Your task to perform on an android device: Go to accessibility settings Image 0: 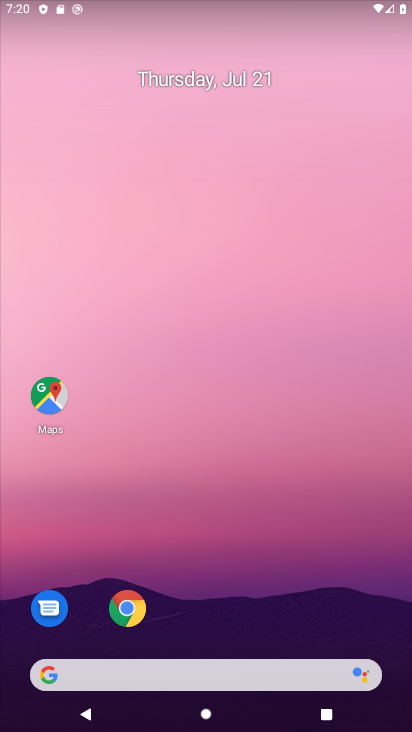
Step 0: drag from (227, 664) to (279, 176)
Your task to perform on an android device: Go to accessibility settings Image 1: 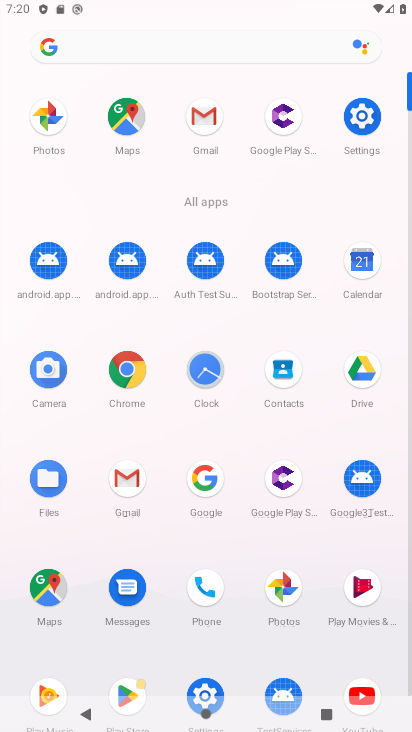
Step 1: click (356, 117)
Your task to perform on an android device: Go to accessibility settings Image 2: 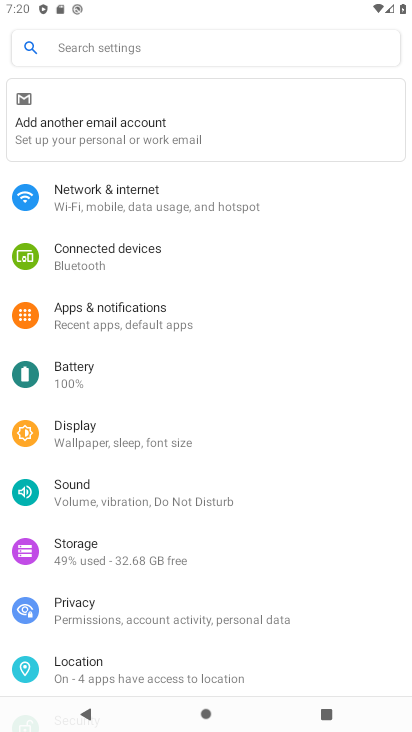
Step 2: drag from (117, 648) to (206, 475)
Your task to perform on an android device: Go to accessibility settings Image 3: 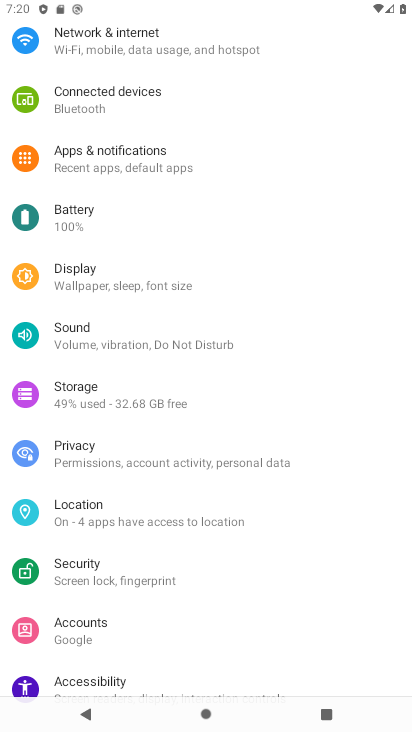
Step 3: drag from (128, 659) to (226, 541)
Your task to perform on an android device: Go to accessibility settings Image 4: 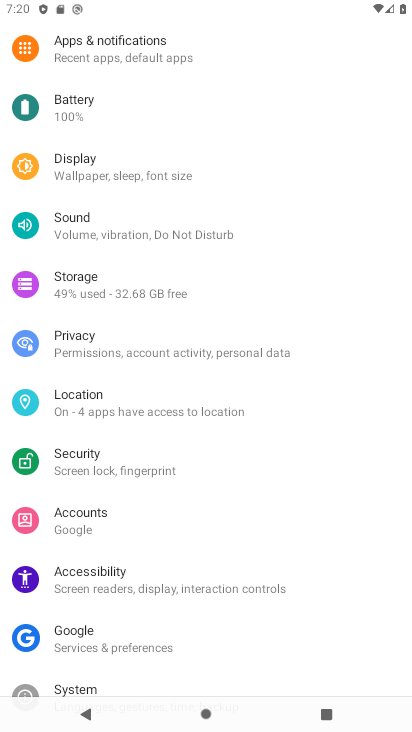
Step 4: click (111, 579)
Your task to perform on an android device: Go to accessibility settings Image 5: 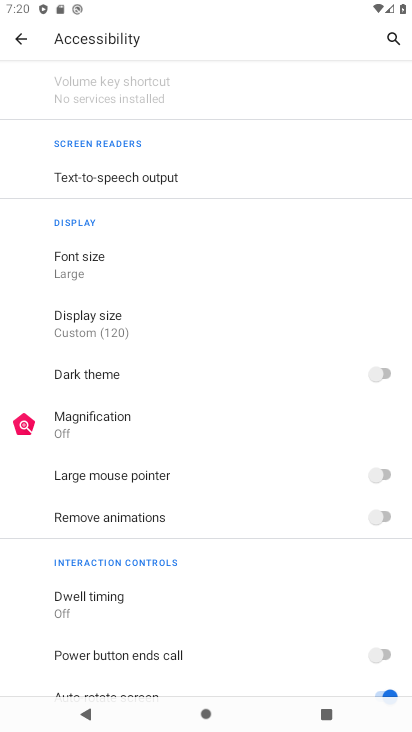
Step 5: task complete